Your task to perform on an android device: turn on data saver in the chrome app Image 0: 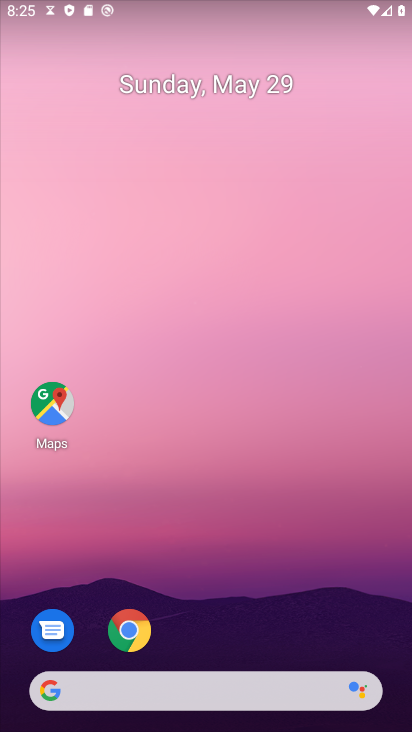
Step 0: click (126, 622)
Your task to perform on an android device: turn on data saver in the chrome app Image 1: 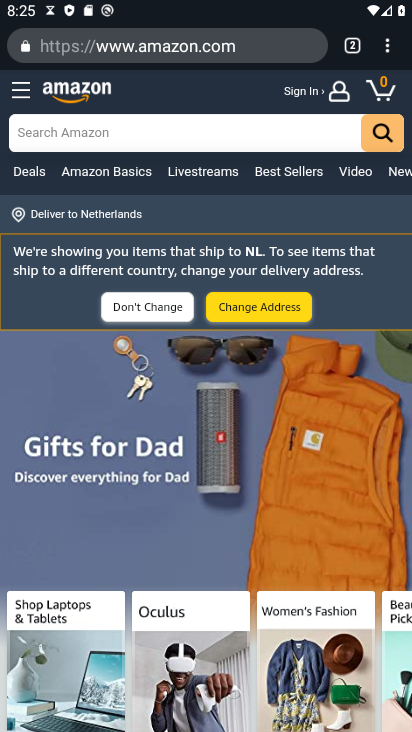
Step 1: click (392, 41)
Your task to perform on an android device: turn on data saver in the chrome app Image 2: 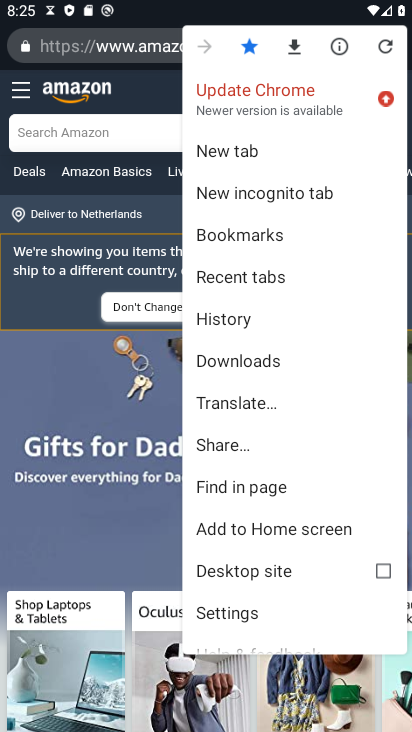
Step 2: click (225, 606)
Your task to perform on an android device: turn on data saver in the chrome app Image 3: 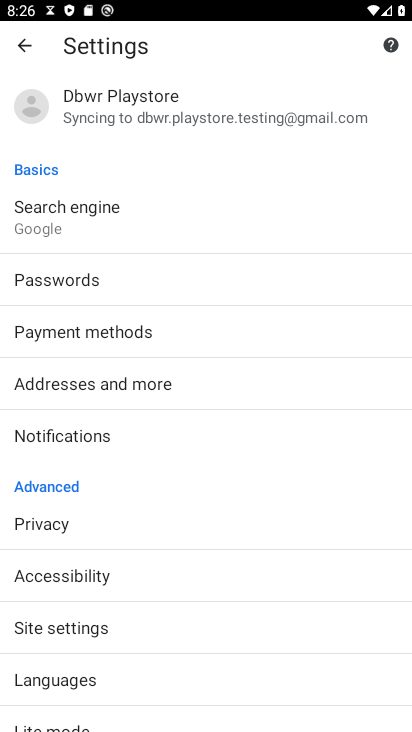
Step 3: drag from (206, 627) to (223, 372)
Your task to perform on an android device: turn on data saver in the chrome app Image 4: 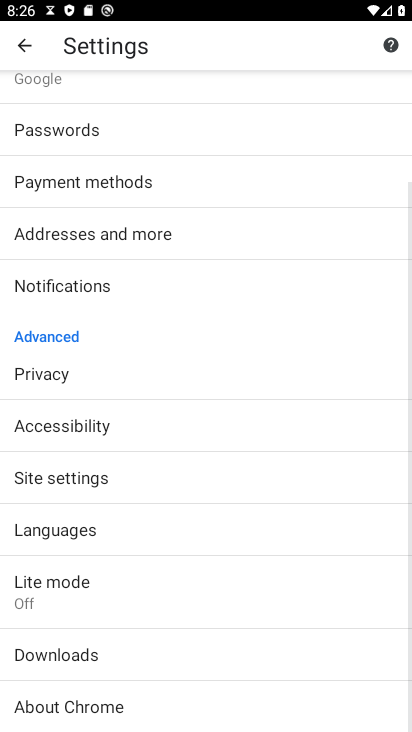
Step 4: click (100, 574)
Your task to perform on an android device: turn on data saver in the chrome app Image 5: 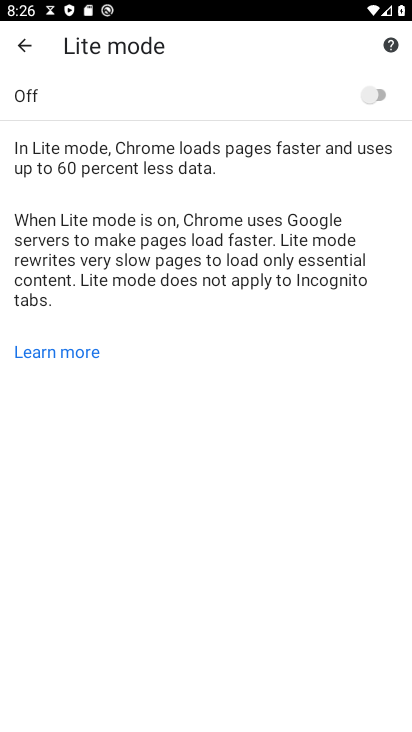
Step 5: click (385, 96)
Your task to perform on an android device: turn on data saver in the chrome app Image 6: 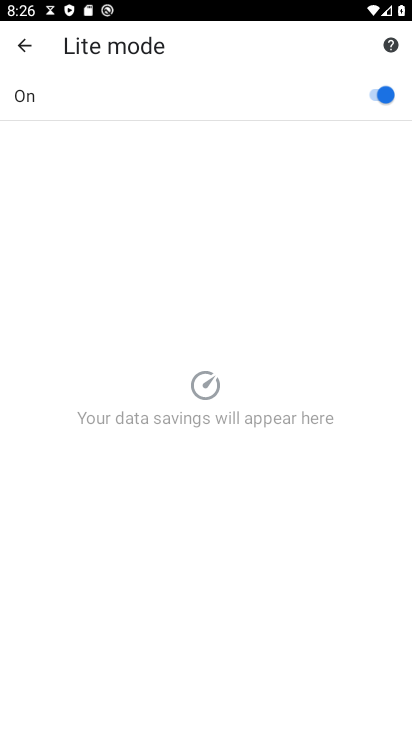
Step 6: task complete